Your task to perform on an android device: read, delete, or share a saved page in the chrome app Image 0: 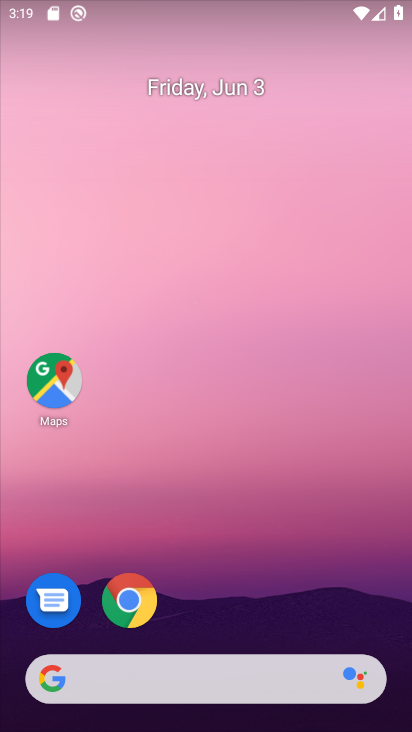
Step 0: click (125, 594)
Your task to perform on an android device: read, delete, or share a saved page in the chrome app Image 1: 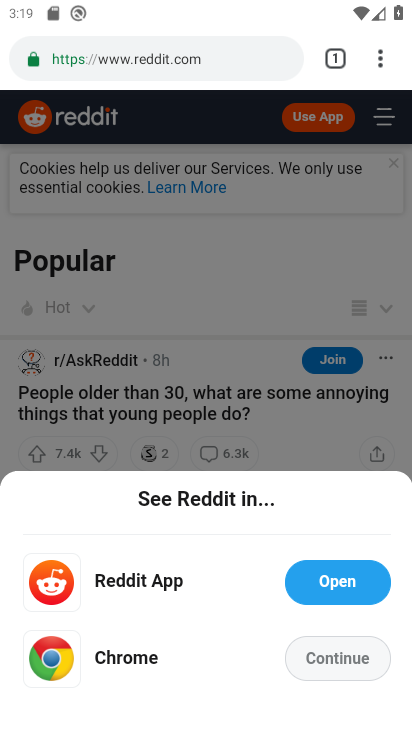
Step 1: task complete